Your task to perform on an android device: Go to Android settings Image 0: 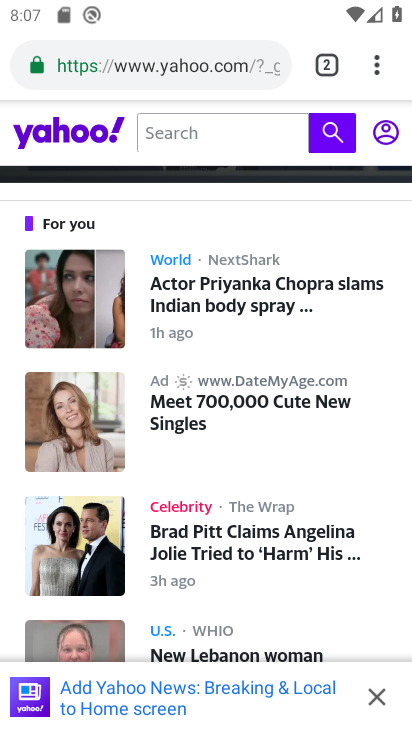
Step 0: press home button
Your task to perform on an android device: Go to Android settings Image 1: 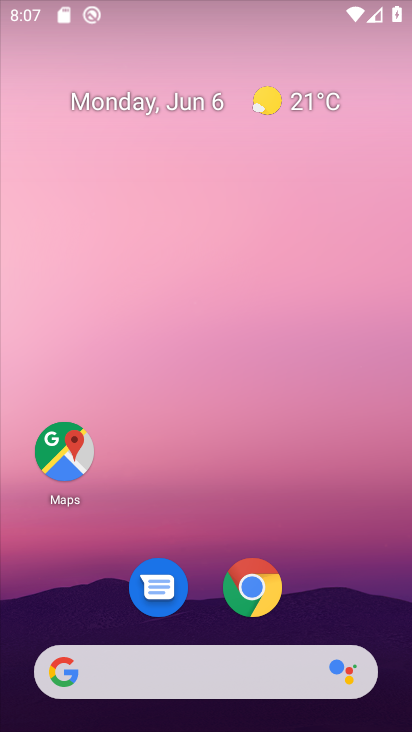
Step 1: drag from (342, 576) to (315, 122)
Your task to perform on an android device: Go to Android settings Image 2: 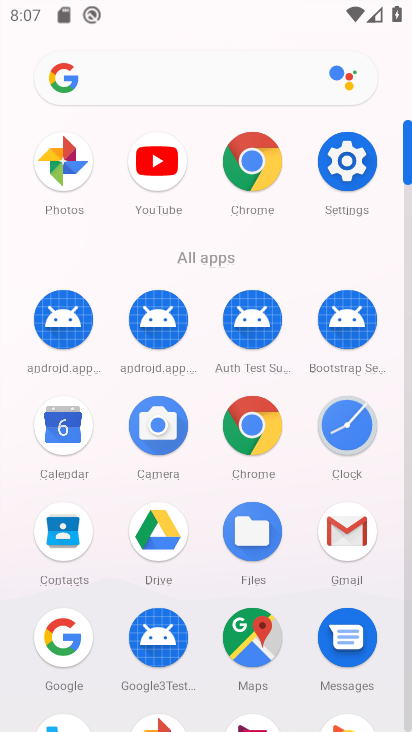
Step 2: click (368, 167)
Your task to perform on an android device: Go to Android settings Image 3: 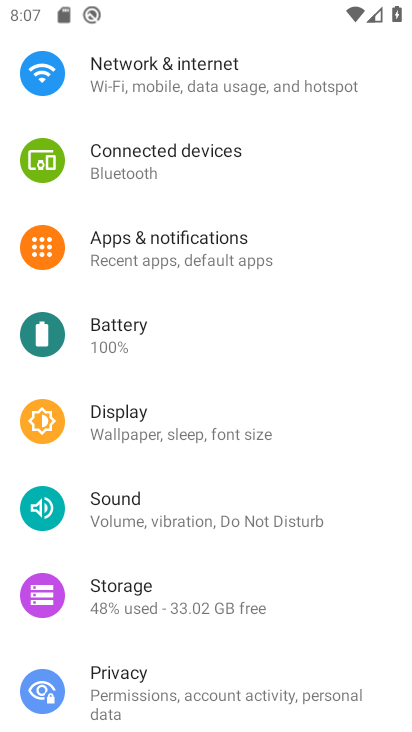
Step 3: drag from (237, 569) to (265, 113)
Your task to perform on an android device: Go to Android settings Image 4: 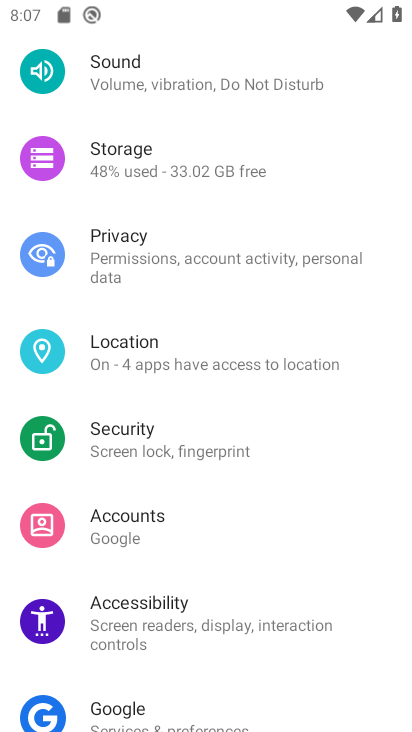
Step 4: drag from (234, 615) to (271, 184)
Your task to perform on an android device: Go to Android settings Image 5: 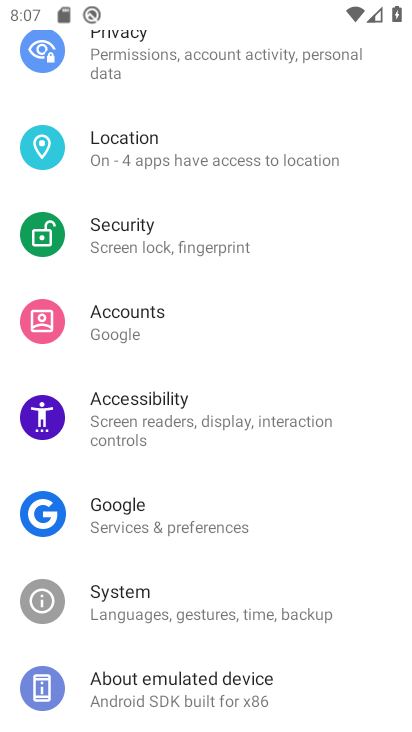
Step 5: click (191, 673)
Your task to perform on an android device: Go to Android settings Image 6: 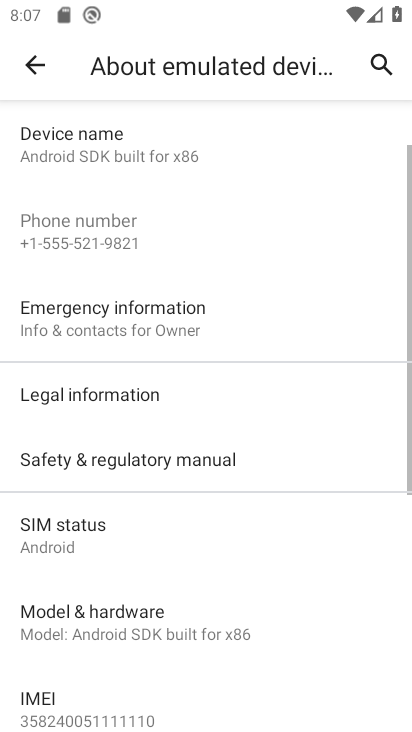
Step 6: drag from (252, 664) to (314, 186)
Your task to perform on an android device: Go to Android settings Image 7: 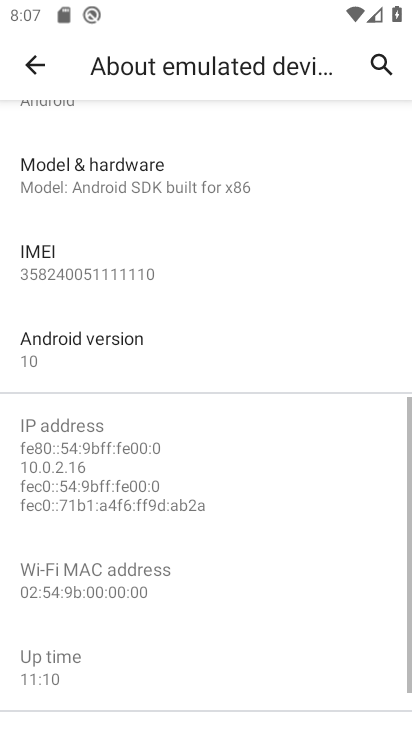
Step 7: click (78, 335)
Your task to perform on an android device: Go to Android settings Image 8: 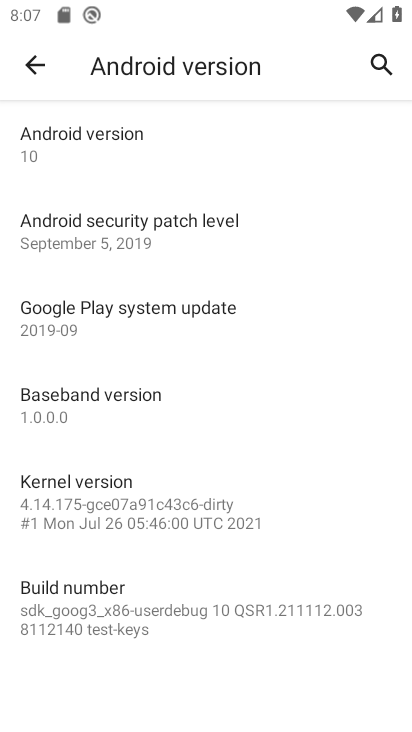
Step 8: task complete